Your task to perform on an android device: Go to privacy settings Image 0: 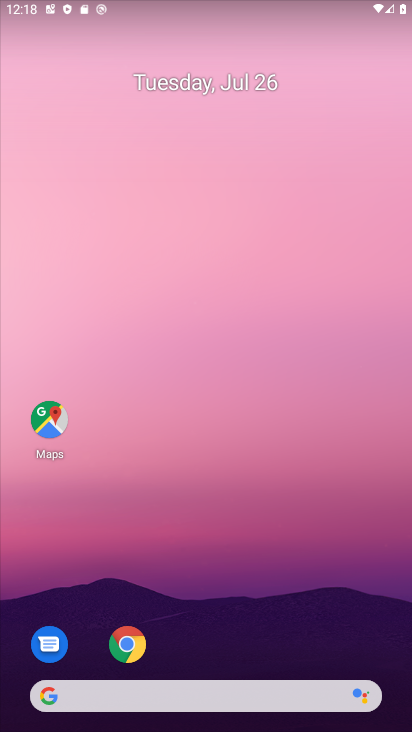
Step 0: drag from (216, 564) to (173, 12)
Your task to perform on an android device: Go to privacy settings Image 1: 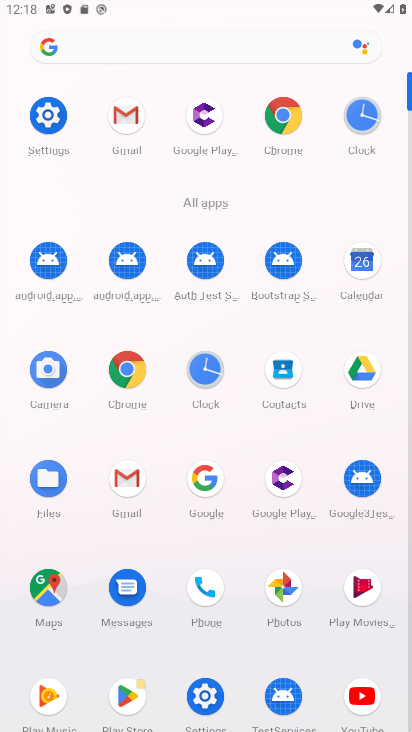
Step 1: click (45, 110)
Your task to perform on an android device: Go to privacy settings Image 2: 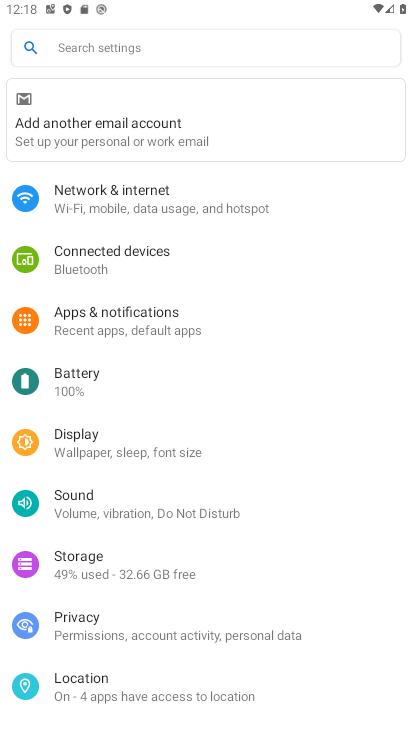
Step 2: click (177, 633)
Your task to perform on an android device: Go to privacy settings Image 3: 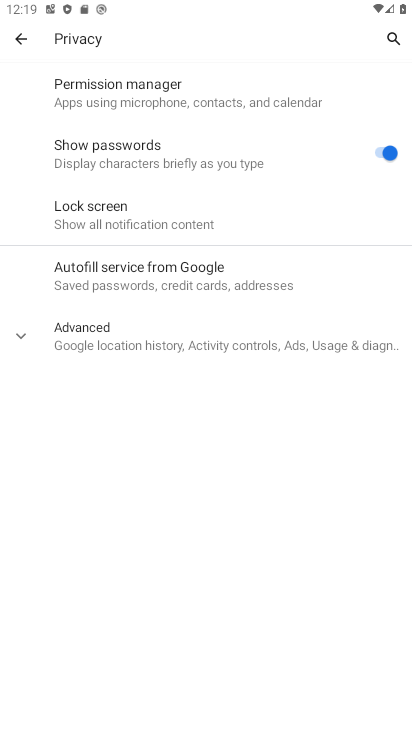
Step 3: task complete